Your task to perform on an android device: Is it going to rain today? Image 0: 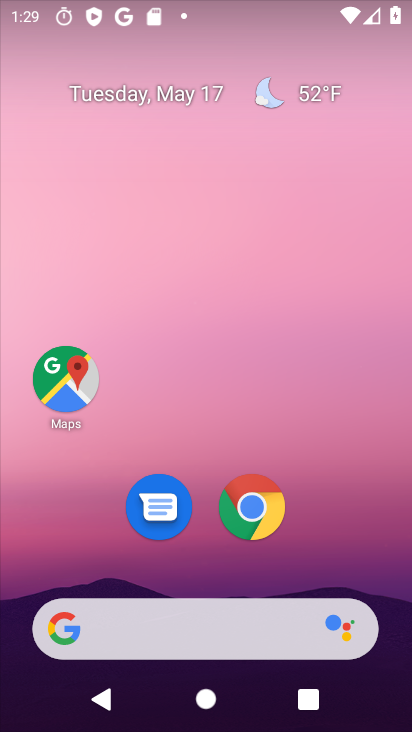
Step 0: drag from (208, 472) to (204, 114)
Your task to perform on an android device: Is it going to rain today? Image 1: 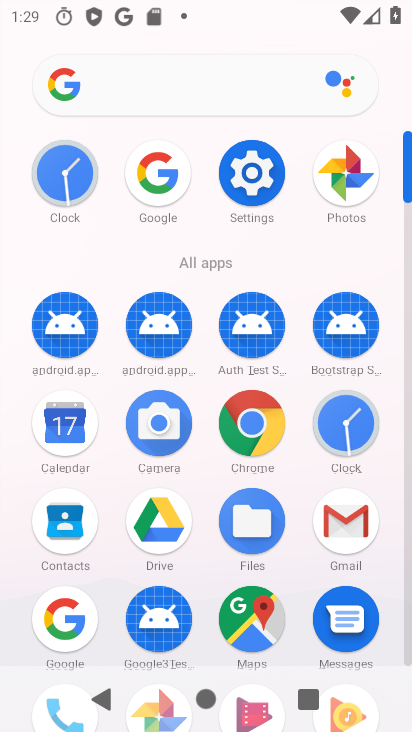
Step 1: click (165, 173)
Your task to perform on an android device: Is it going to rain today? Image 2: 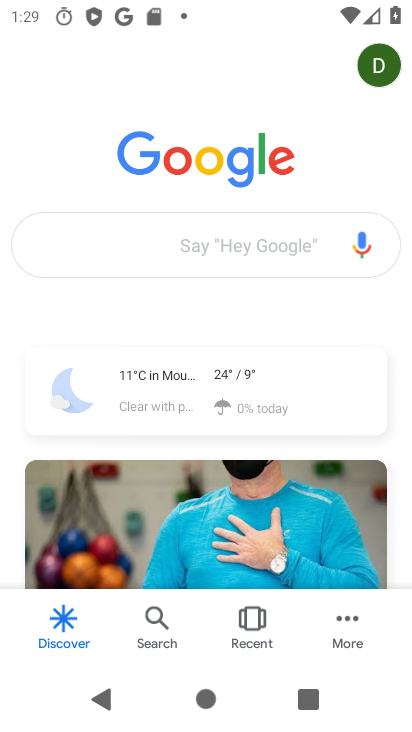
Step 2: click (192, 236)
Your task to perform on an android device: Is it going to rain today? Image 3: 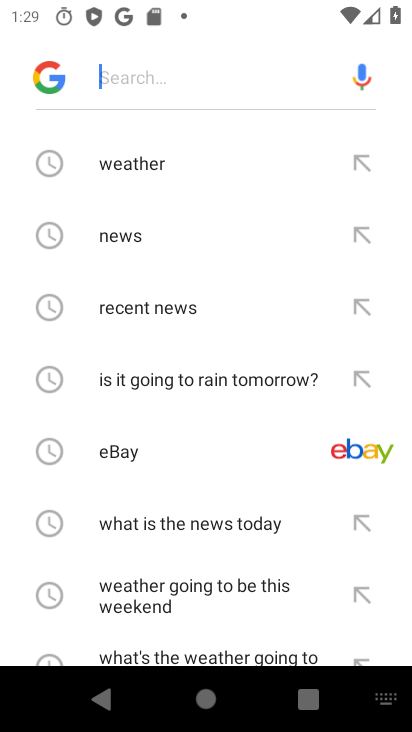
Step 3: type "is it going to rain today"
Your task to perform on an android device: Is it going to rain today? Image 4: 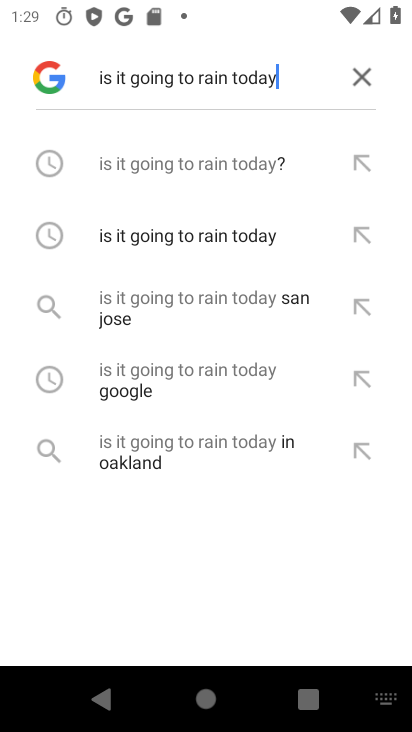
Step 4: click (201, 165)
Your task to perform on an android device: Is it going to rain today? Image 5: 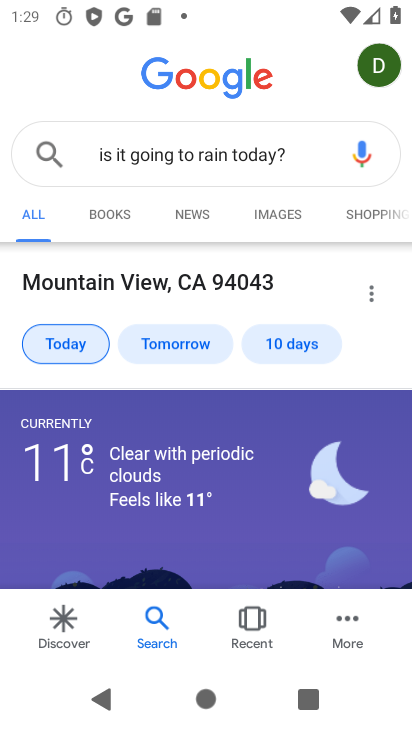
Step 5: task complete